Your task to perform on an android device: Open Google Chrome and open the bookmarks view Image 0: 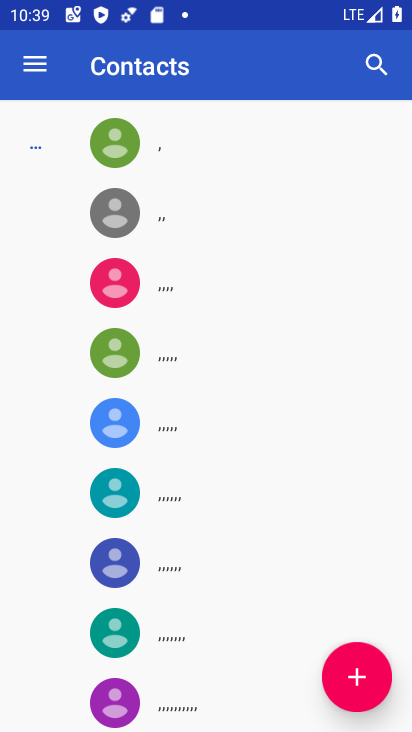
Step 0: press home button
Your task to perform on an android device: Open Google Chrome and open the bookmarks view Image 1: 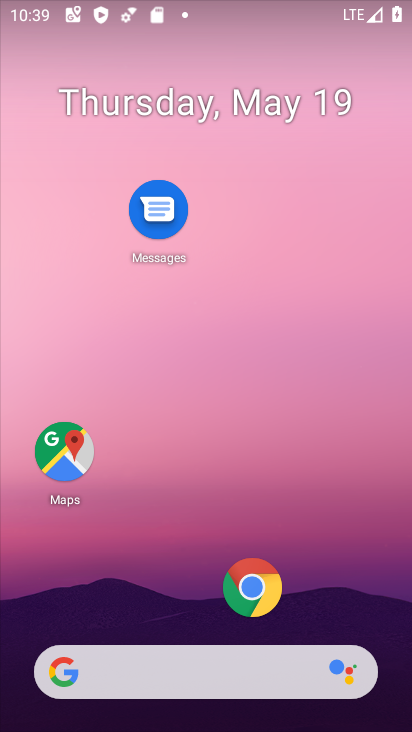
Step 1: click (246, 593)
Your task to perform on an android device: Open Google Chrome and open the bookmarks view Image 2: 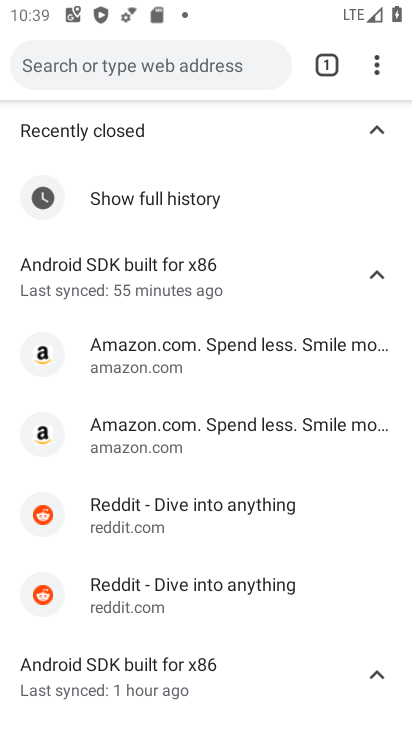
Step 2: click (394, 62)
Your task to perform on an android device: Open Google Chrome and open the bookmarks view Image 3: 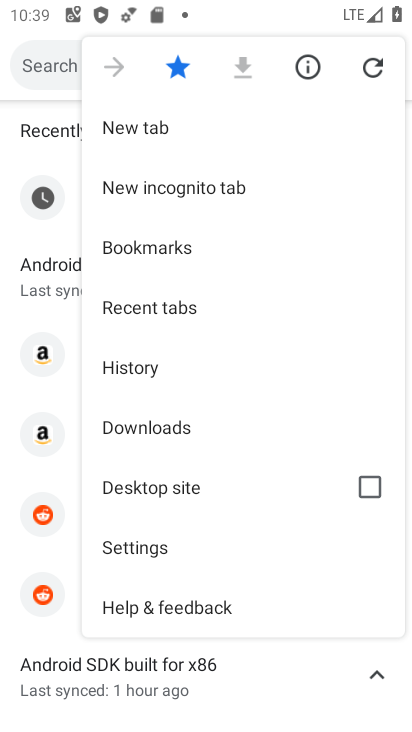
Step 3: click (162, 262)
Your task to perform on an android device: Open Google Chrome and open the bookmarks view Image 4: 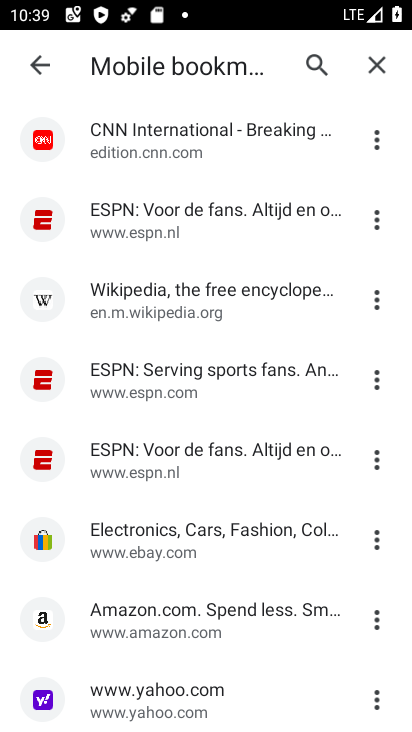
Step 4: task complete